Your task to perform on an android device: change the clock display to show seconds Image 0: 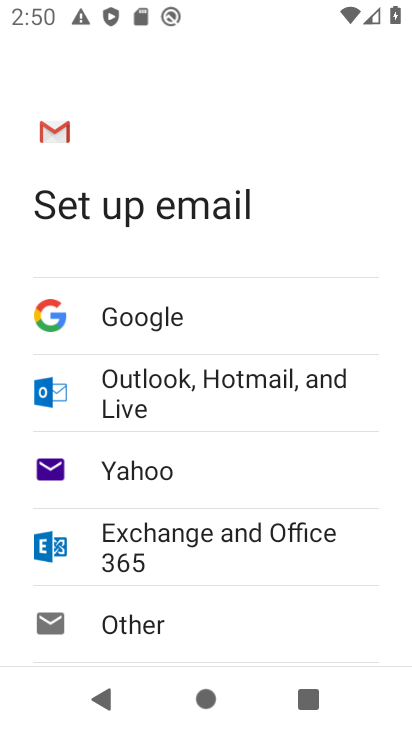
Step 0: press home button
Your task to perform on an android device: change the clock display to show seconds Image 1: 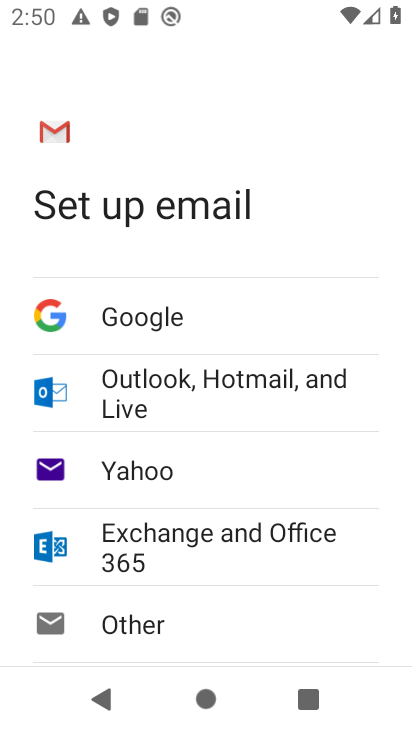
Step 1: press home button
Your task to perform on an android device: change the clock display to show seconds Image 2: 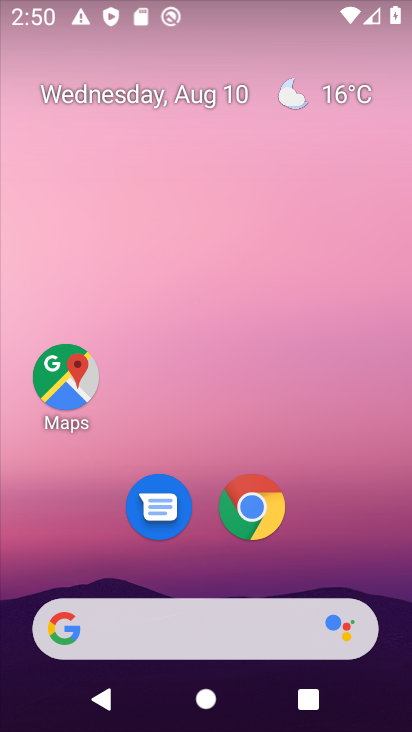
Step 2: drag from (338, 548) to (318, 105)
Your task to perform on an android device: change the clock display to show seconds Image 3: 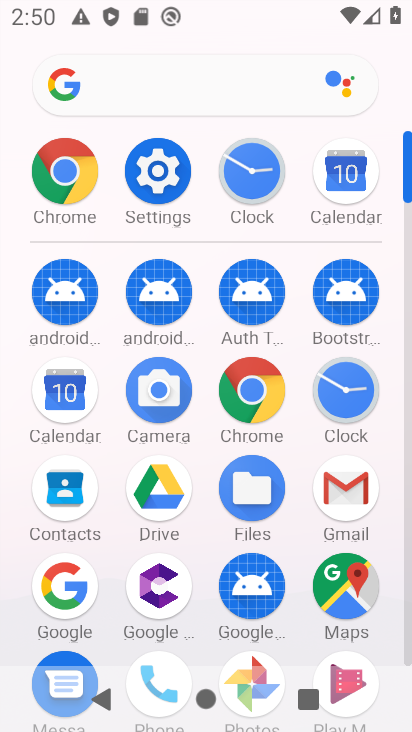
Step 3: click (255, 166)
Your task to perform on an android device: change the clock display to show seconds Image 4: 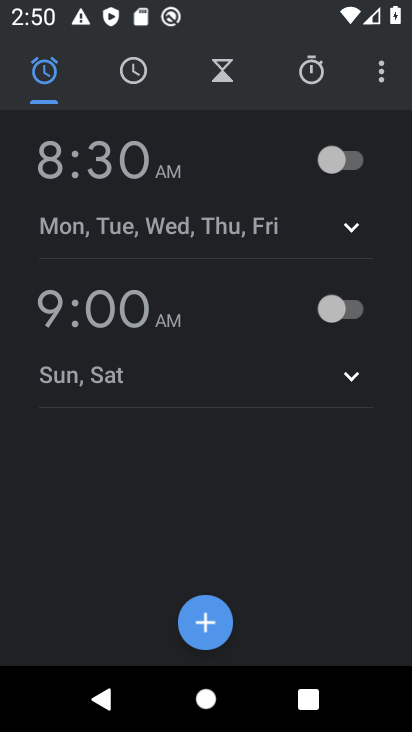
Step 4: click (379, 67)
Your task to perform on an android device: change the clock display to show seconds Image 5: 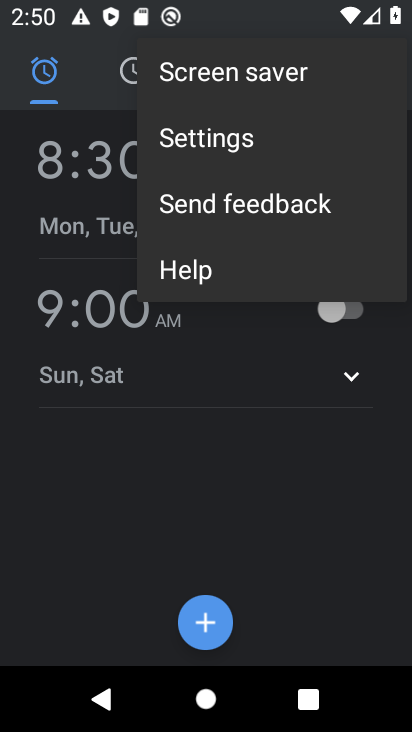
Step 5: click (243, 135)
Your task to perform on an android device: change the clock display to show seconds Image 6: 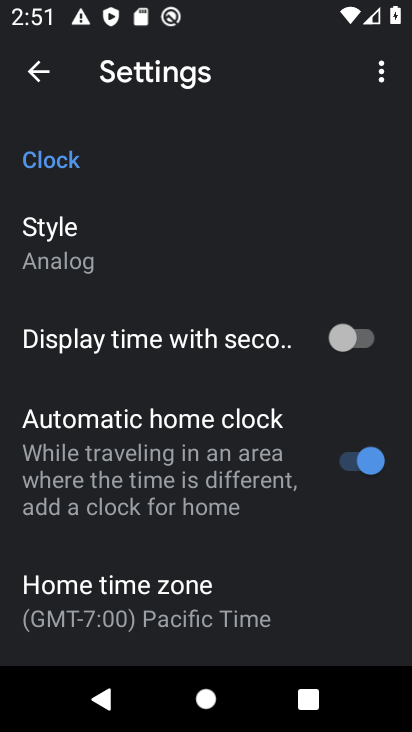
Step 6: click (367, 357)
Your task to perform on an android device: change the clock display to show seconds Image 7: 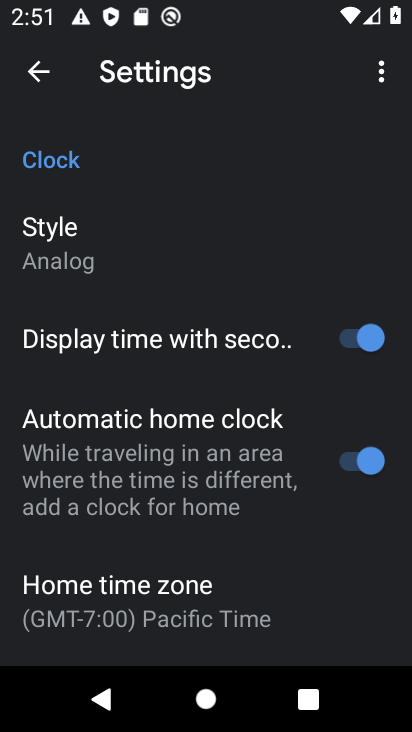
Step 7: task complete